Your task to perform on an android device: set the stopwatch Image 0: 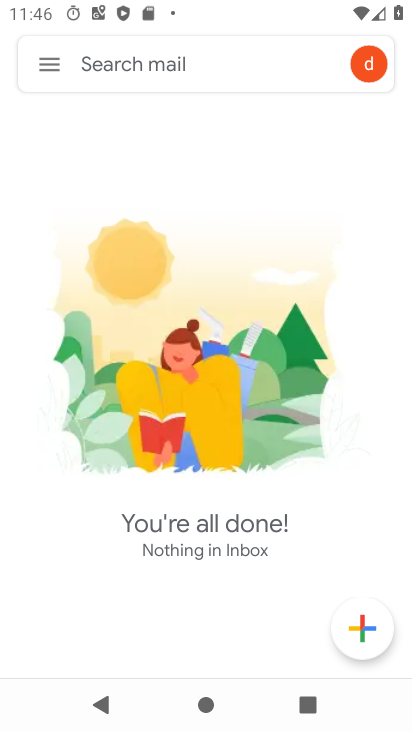
Step 0: press home button
Your task to perform on an android device: set the stopwatch Image 1: 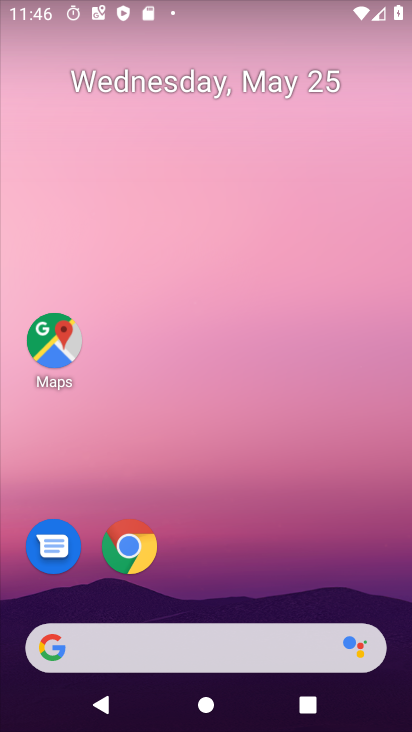
Step 1: drag from (259, 571) to (362, 9)
Your task to perform on an android device: set the stopwatch Image 2: 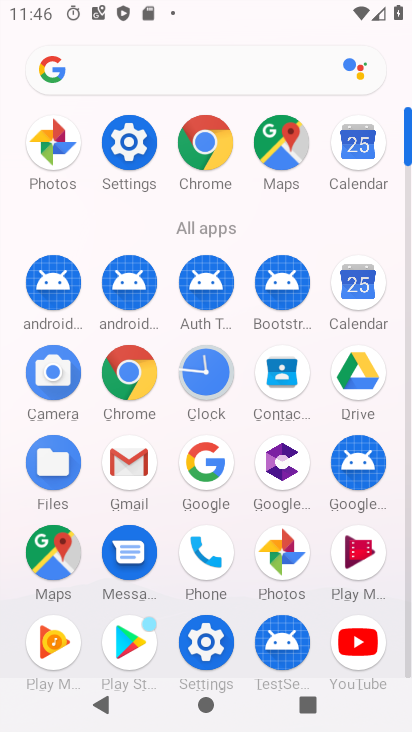
Step 2: click (198, 375)
Your task to perform on an android device: set the stopwatch Image 3: 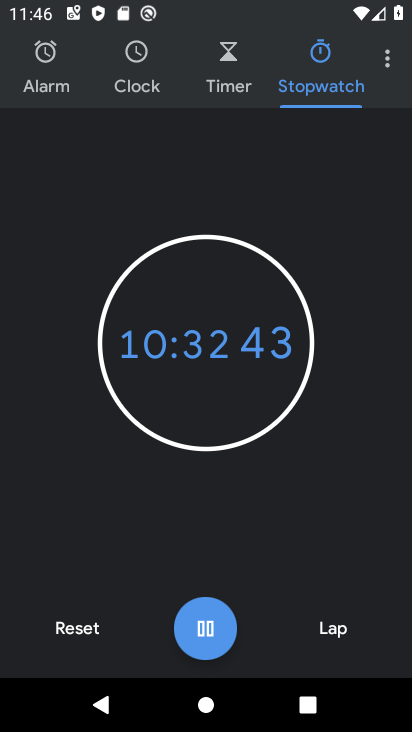
Step 3: task complete